Your task to perform on an android device: check data usage Image 0: 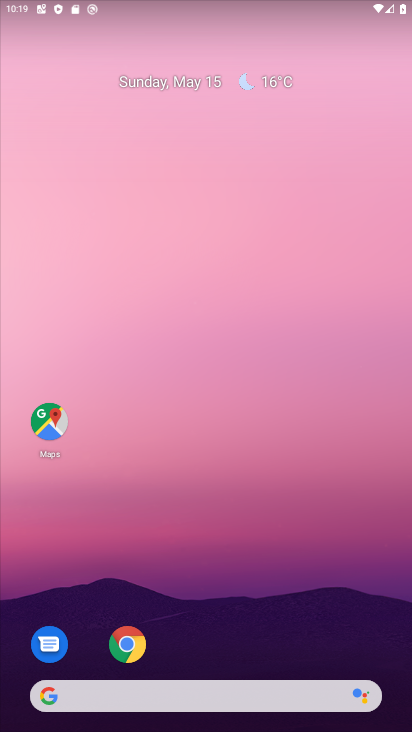
Step 0: drag from (296, 618) to (288, 110)
Your task to perform on an android device: check data usage Image 1: 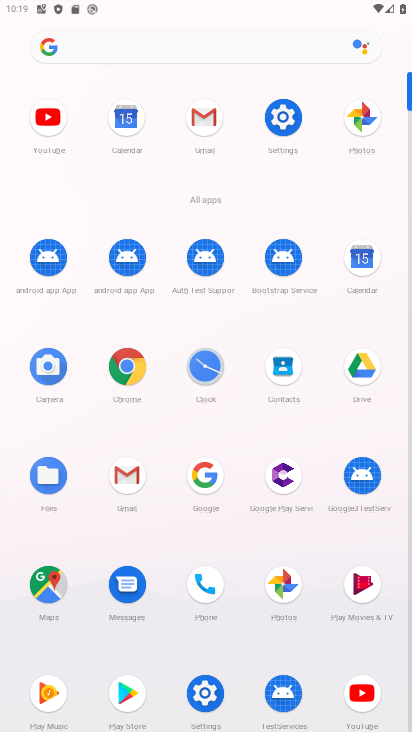
Step 1: drag from (306, 5) to (291, 606)
Your task to perform on an android device: check data usage Image 2: 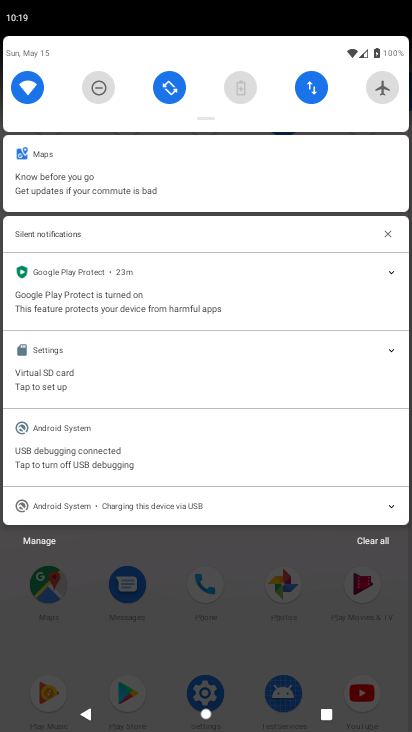
Step 2: drag from (303, 123) to (302, 593)
Your task to perform on an android device: check data usage Image 3: 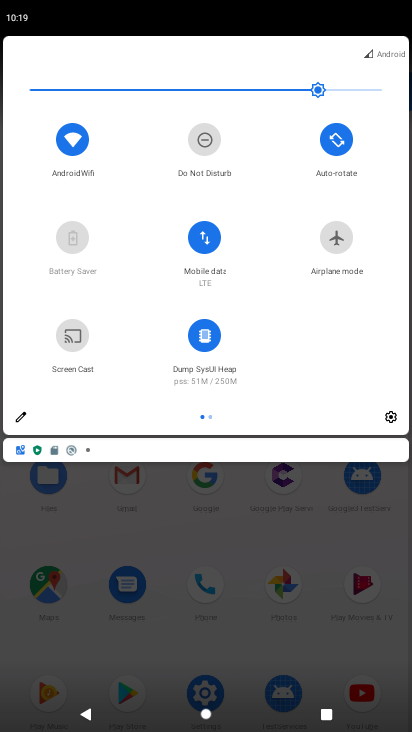
Step 3: click (200, 246)
Your task to perform on an android device: check data usage Image 4: 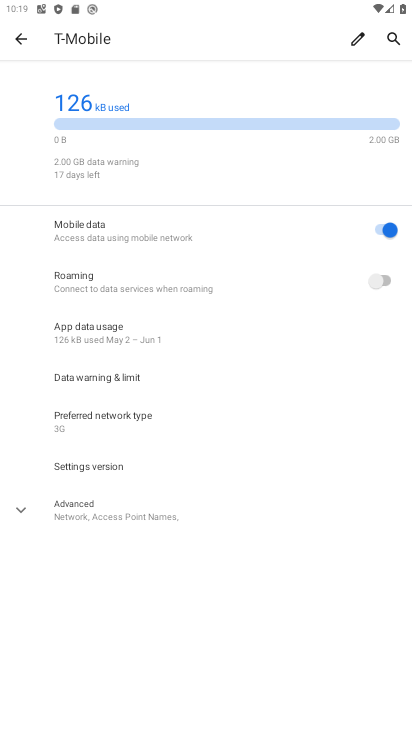
Step 4: task complete